Your task to perform on an android device: toggle sleep mode Image 0: 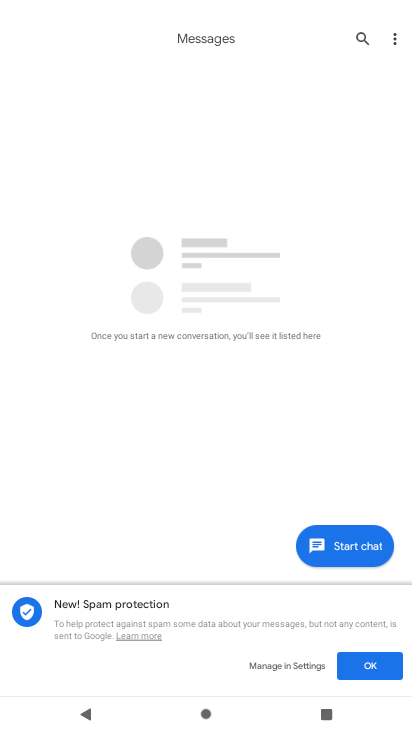
Step 0: press home button
Your task to perform on an android device: toggle sleep mode Image 1: 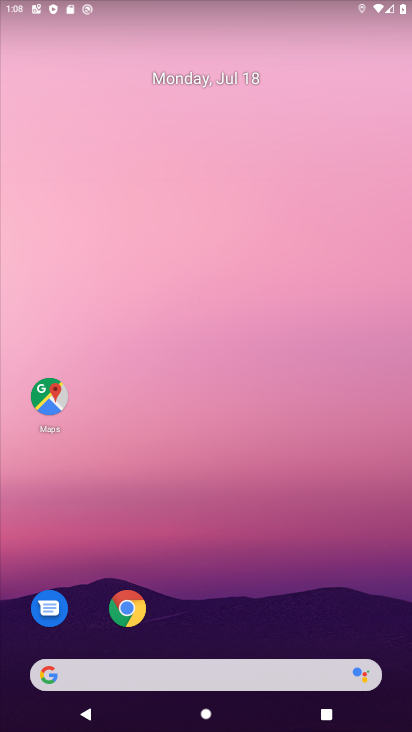
Step 1: drag from (251, 648) to (177, 155)
Your task to perform on an android device: toggle sleep mode Image 2: 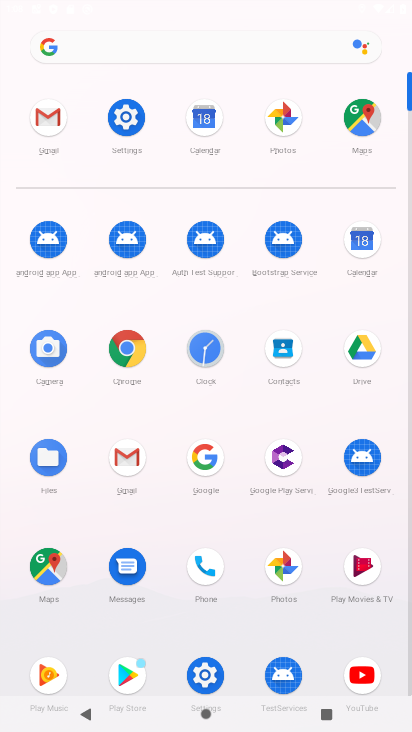
Step 2: click (129, 115)
Your task to perform on an android device: toggle sleep mode Image 3: 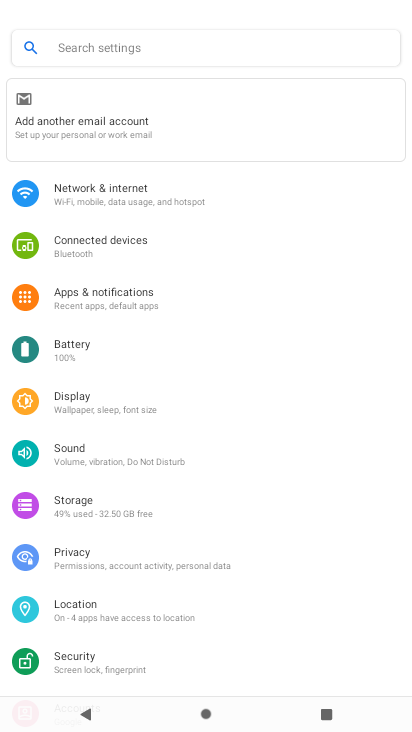
Step 3: click (136, 307)
Your task to perform on an android device: toggle sleep mode Image 4: 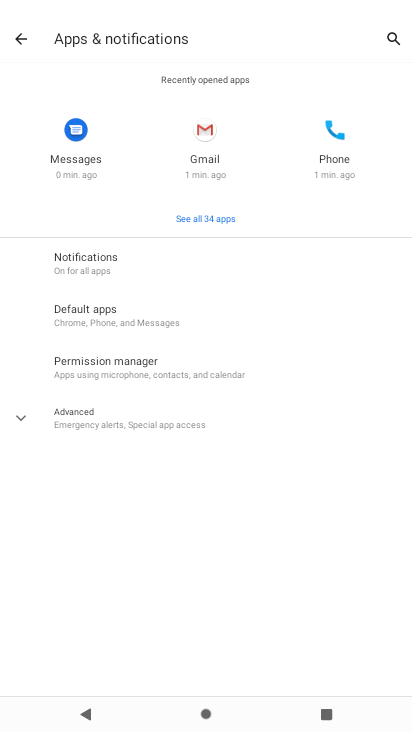
Step 4: press back button
Your task to perform on an android device: toggle sleep mode Image 5: 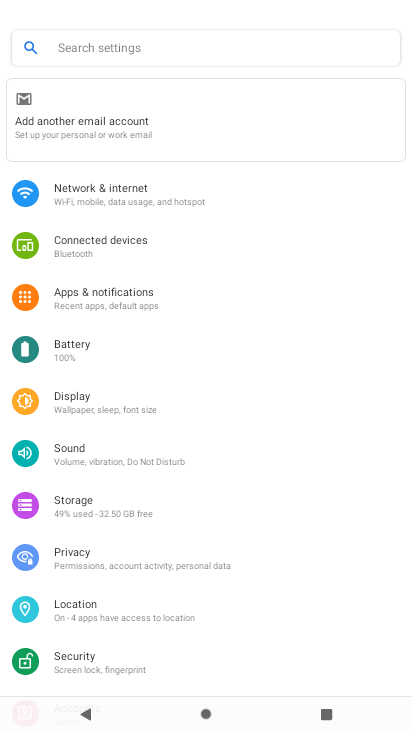
Step 5: click (162, 400)
Your task to perform on an android device: toggle sleep mode Image 6: 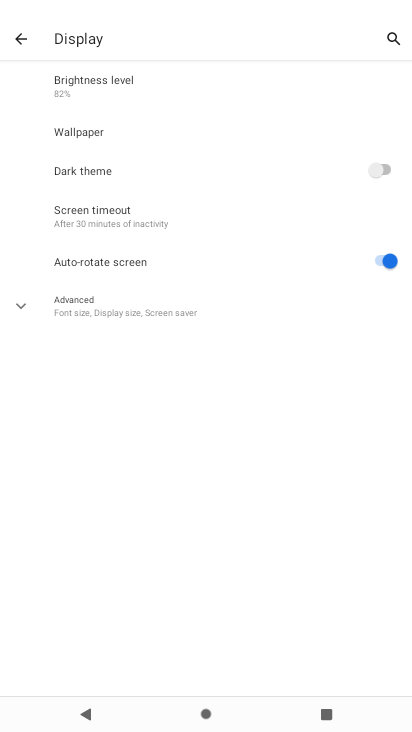
Step 6: click (181, 309)
Your task to perform on an android device: toggle sleep mode Image 7: 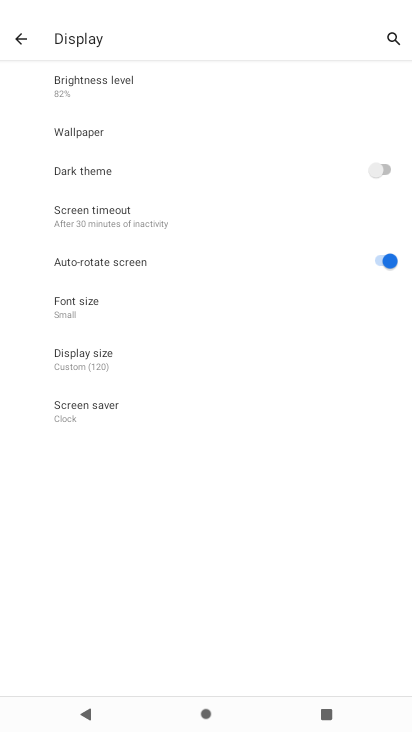
Step 7: task complete